Your task to perform on an android device: move an email to a new category in the gmail app Image 0: 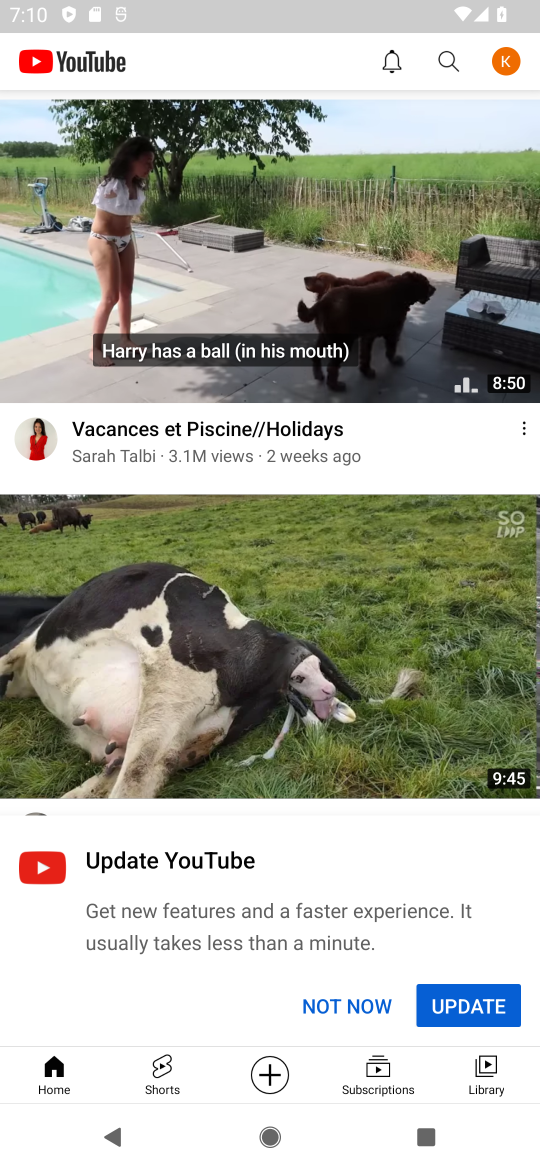
Step 0: press home button
Your task to perform on an android device: move an email to a new category in the gmail app Image 1: 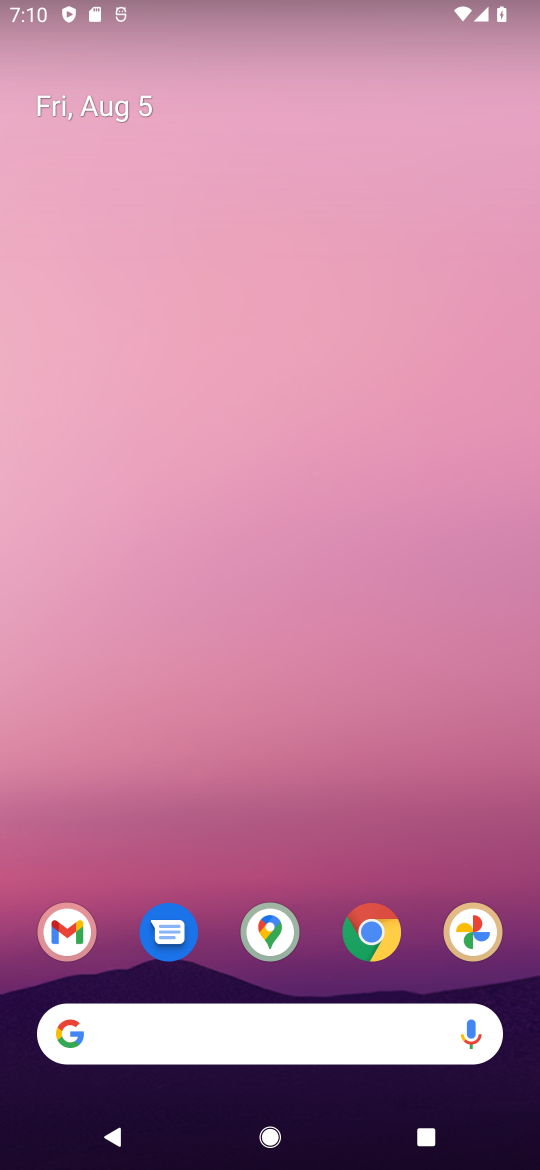
Step 1: drag from (414, 779) to (460, 166)
Your task to perform on an android device: move an email to a new category in the gmail app Image 2: 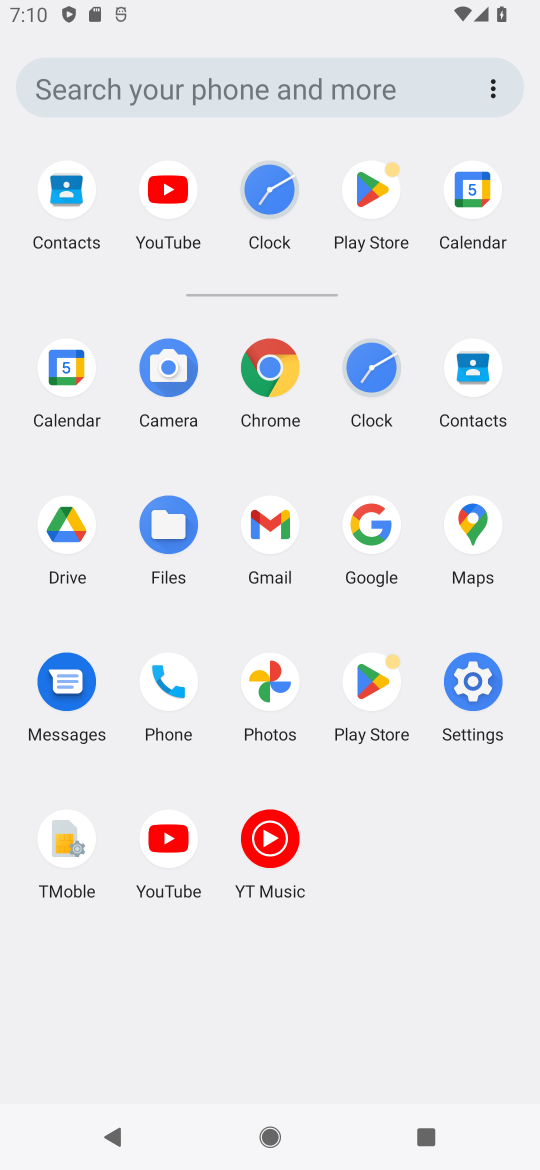
Step 2: click (268, 523)
Your task to perform on an android device: move an email to a new category in the gmail app Image 3: 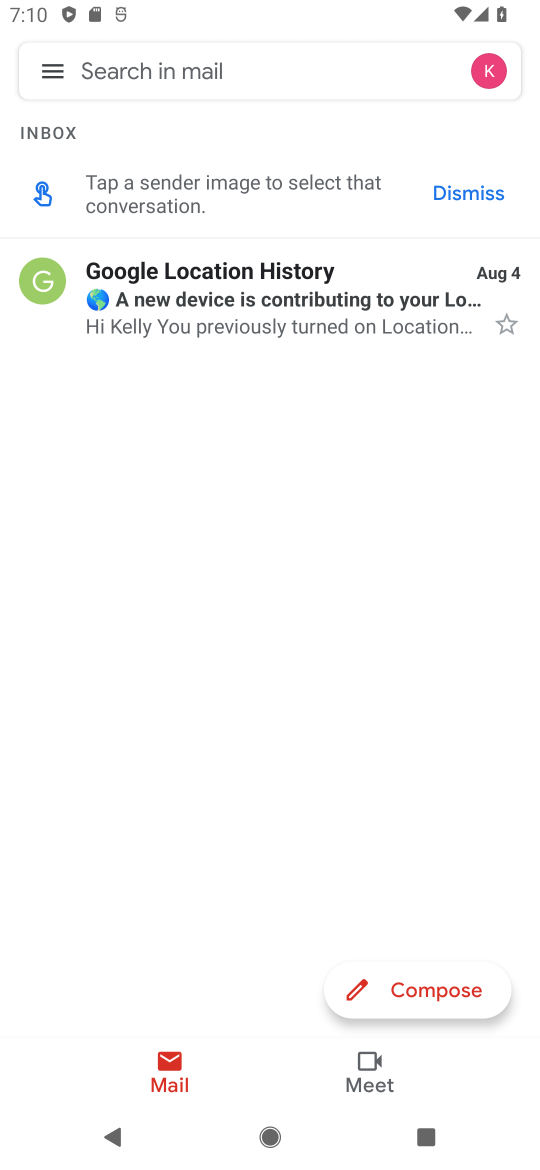
Step 3: click (183, 282)
Your task to perform on an android device: move an email to a new category in the gmail app Image 4: 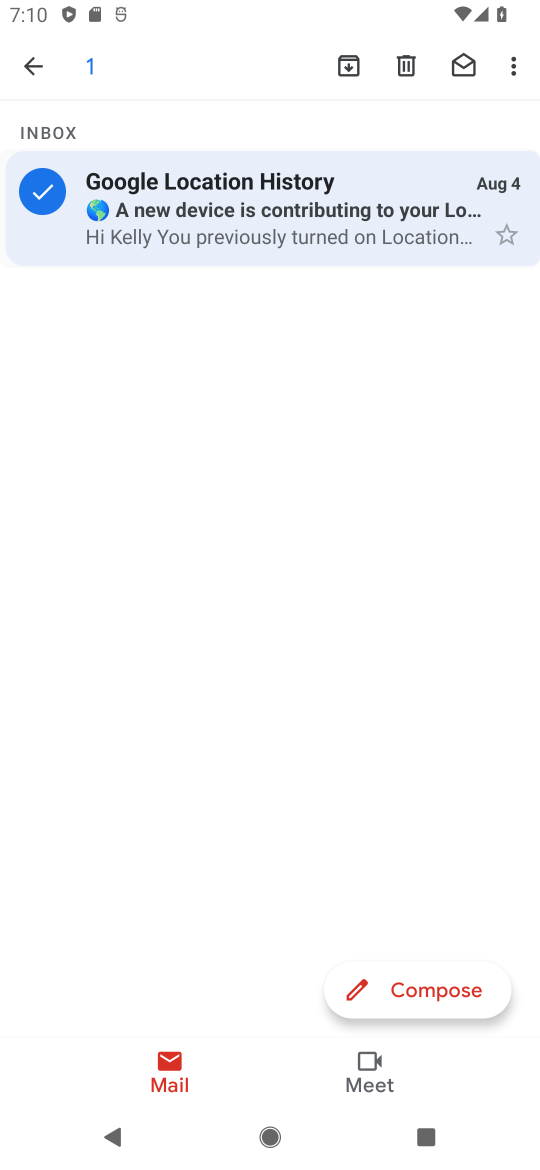
Step 4: click (183, 214)
Your task to perform on an android device: move an email to a new category in the gmail app Image 5: 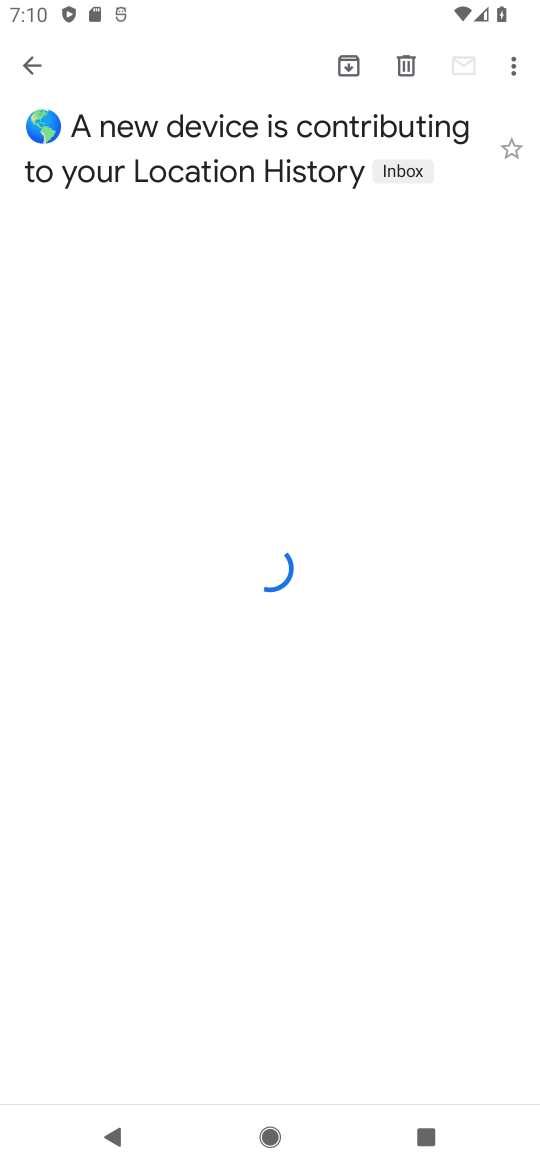
Step 5: click (43, 56)
Your task to perform on an android device: move an email to a new category in the gmail app Image 6: 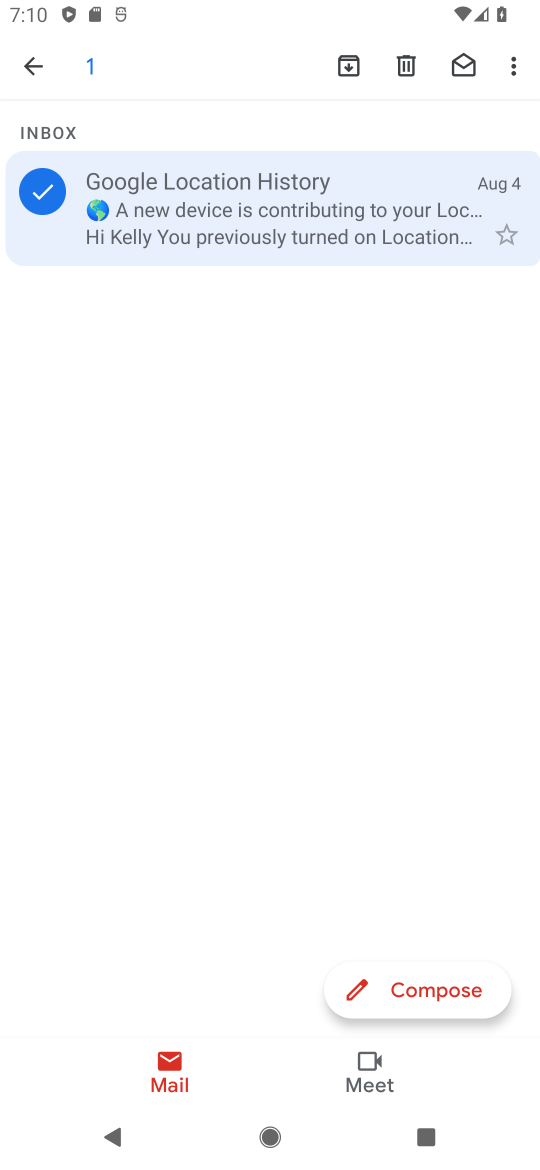
Step 6: click (43, 56)
Your task to perform on an android device: move an email to a new category in the gmail app Image 7: 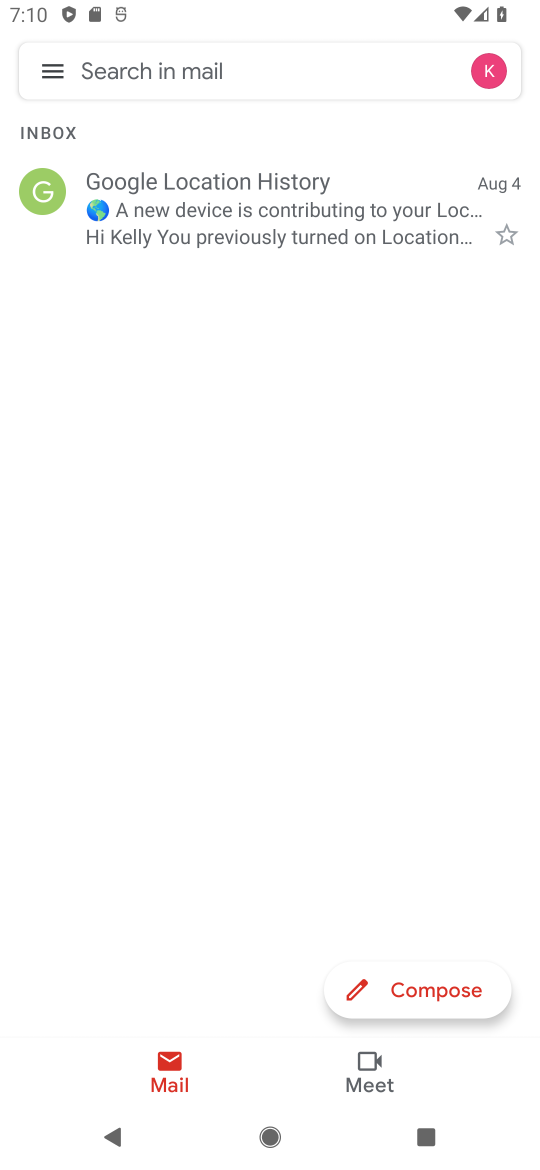
Step 7: click (43, 56)
Your task to perform on an android device: move an email to a new category in the gmail app Image 8: 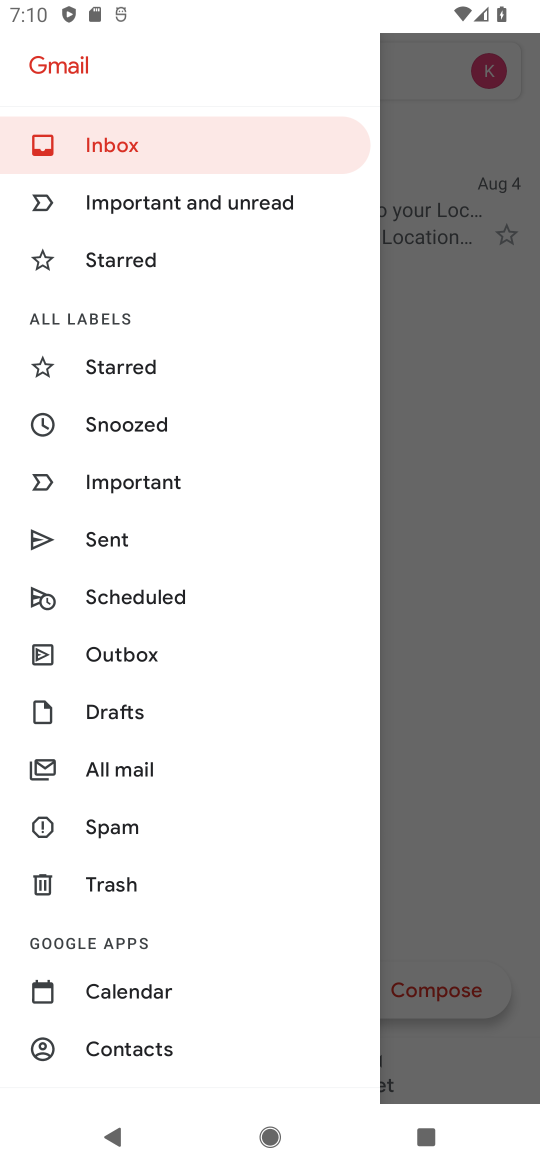
Step 8: drag from (196, 951) to (242, 241)
Your task to perform on an android device: move an email to a new category in the gmail app Image 9: 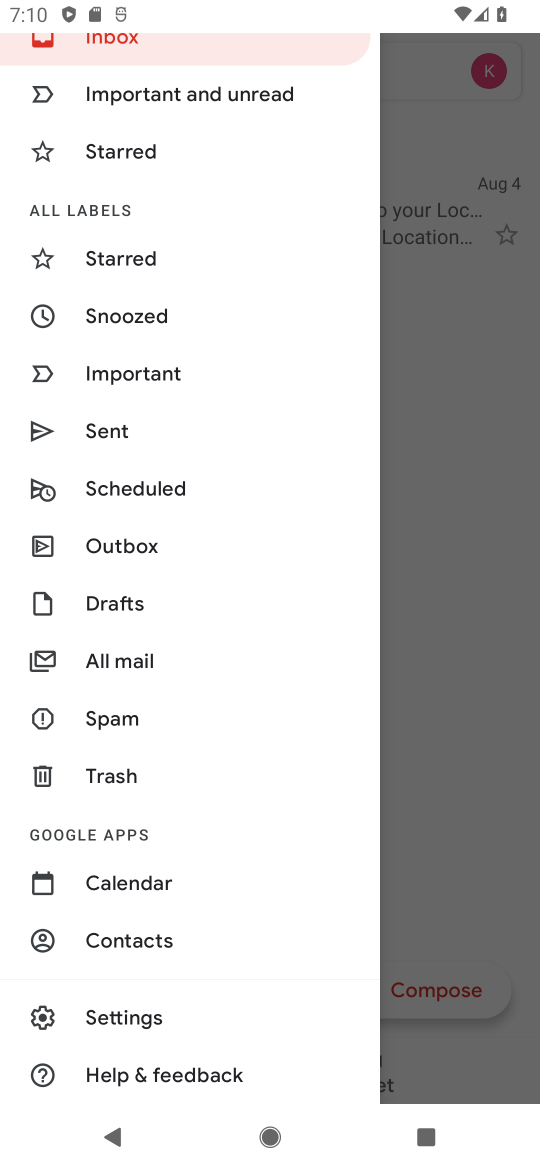
Step 9: click (136, 1005)
Your task to perform on an android device: move an email to a new category in the gmail app Image 10: 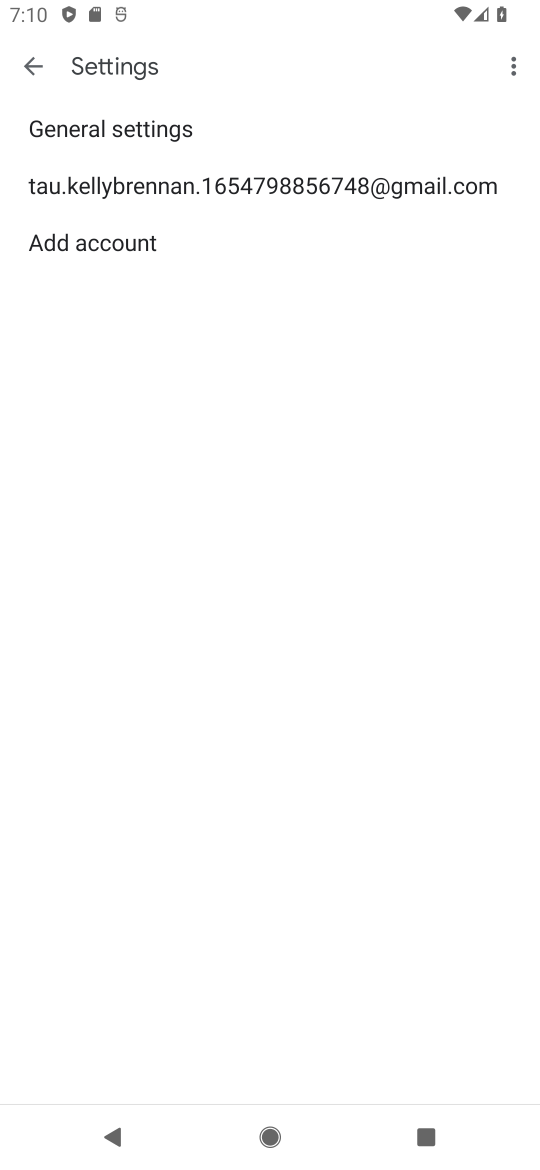
Step 10: click (333, 187)
Your task to perform on an android device: move an email to a new category in the gmail app Image 11: 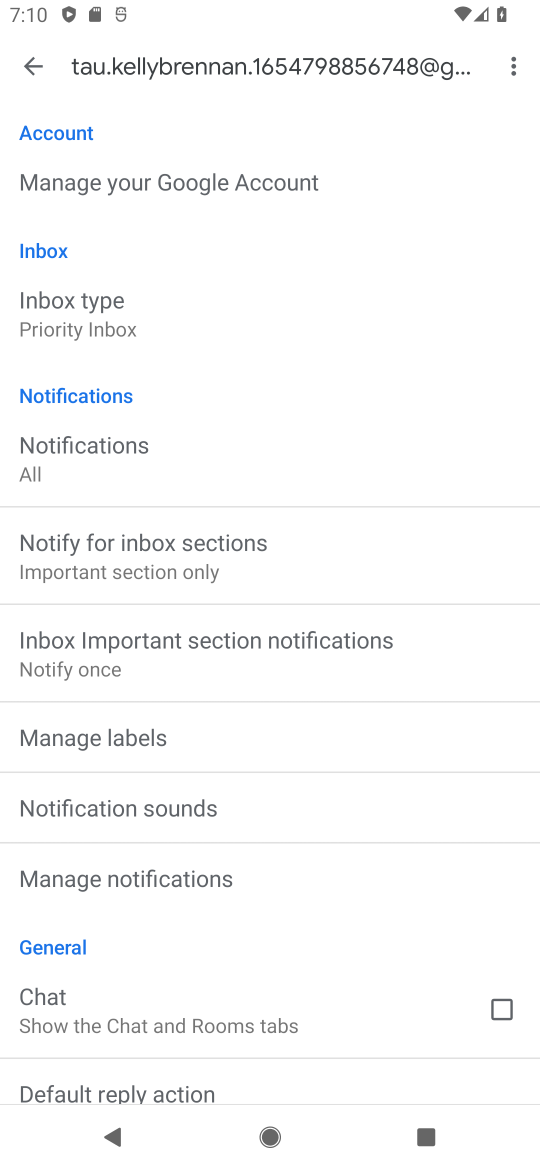
Step 11: click (125, 734)
Your task to perform on an android device: move an email to a new category in the gmail app Image 12: 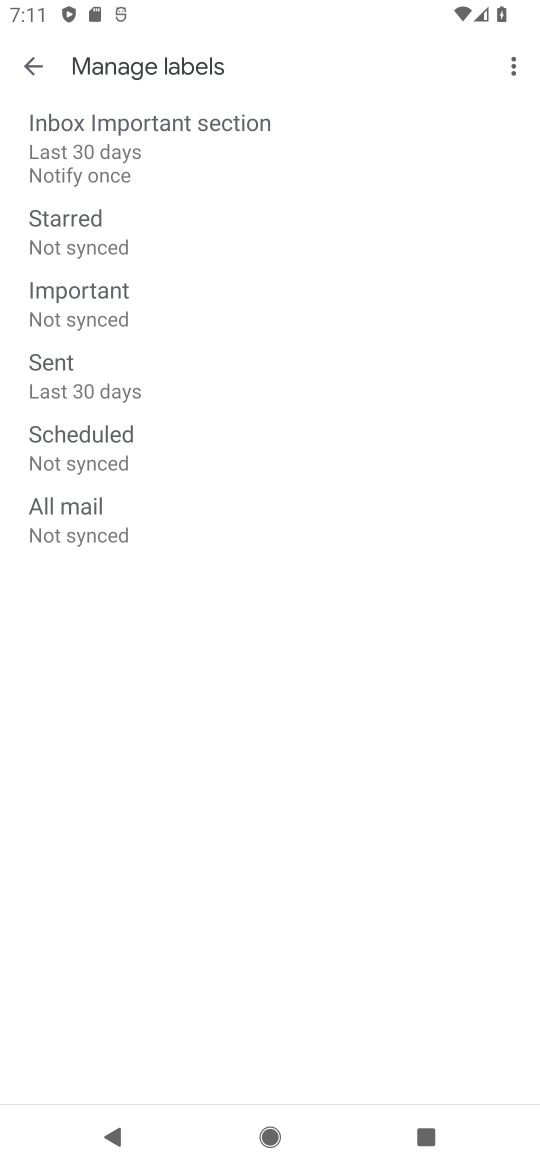
Step 12: click (519, 46)
Your task to perform on an android device: move an email to a new category in the gmail app Image 13: 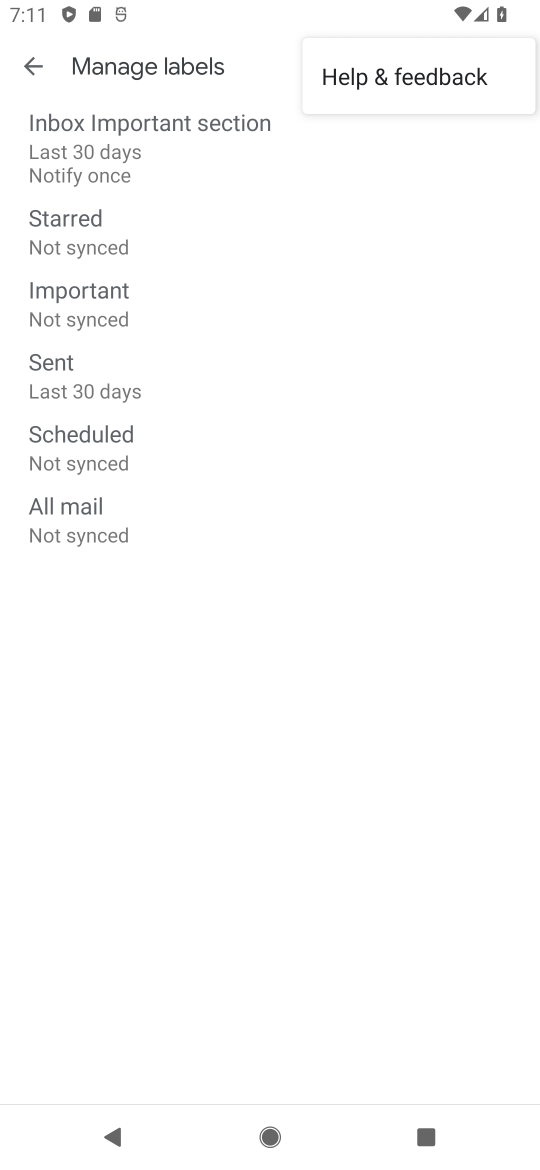
Step 13: task complete